Your task to perform on an android device: Open Google Maps Image 0: 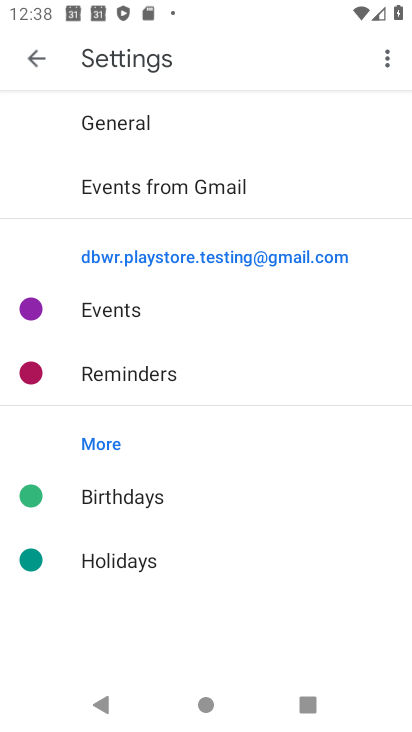
Step 0: press home button
Your task to perform on an android device: Open Google Maps Image 1: 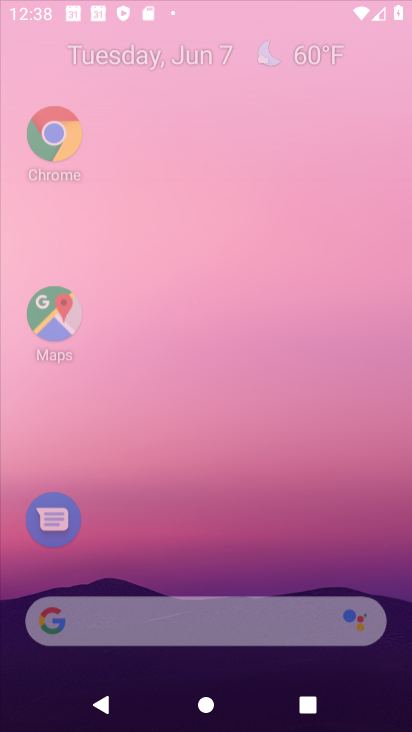
Step 1: drag from (143, 618) to (353, 253)
Your task to perform on an android device: Open Google Maps Image 2: 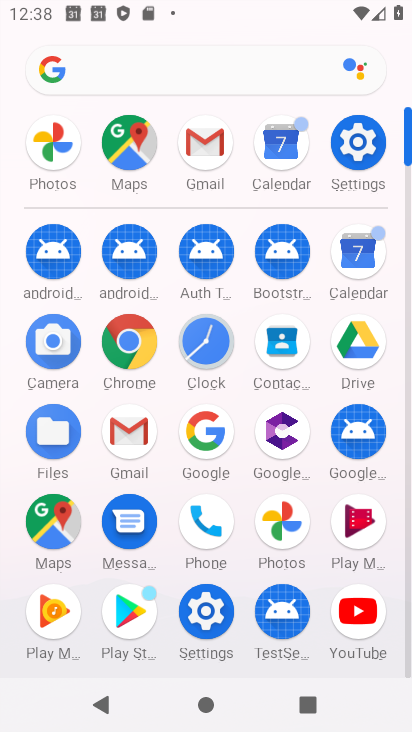
Step 2: click (58, 504)
Your task to perform on an android device: Open Google Maps Image 3: 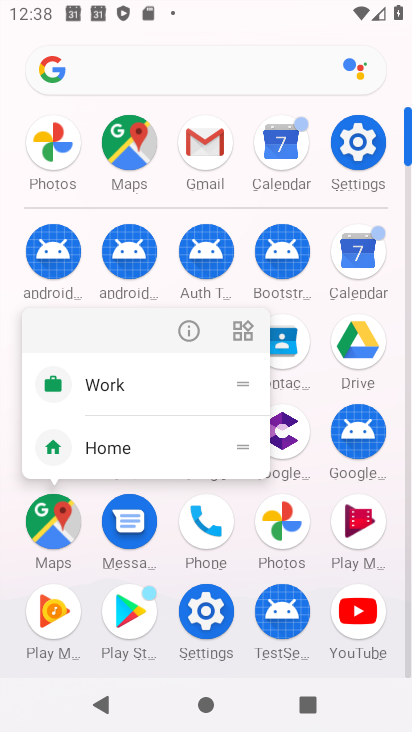
Step 3: click (172, 337)
Your task to perform on an android device: Open Google Maps Image 4: 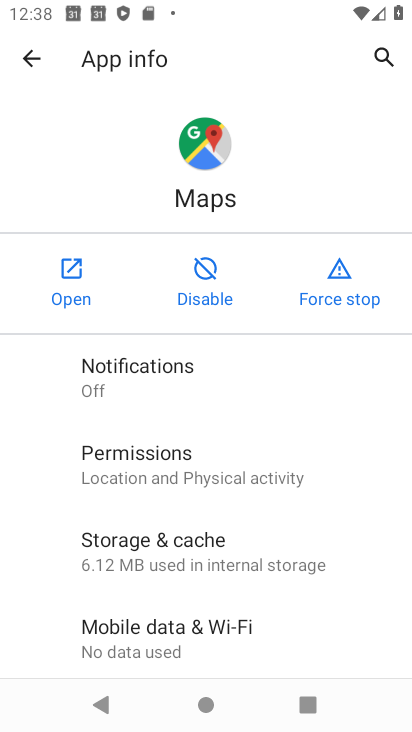
Step 4: drag from (267, 559) to (373, 207)
Your task to perform on an android device: Open Google Maps Image 5: 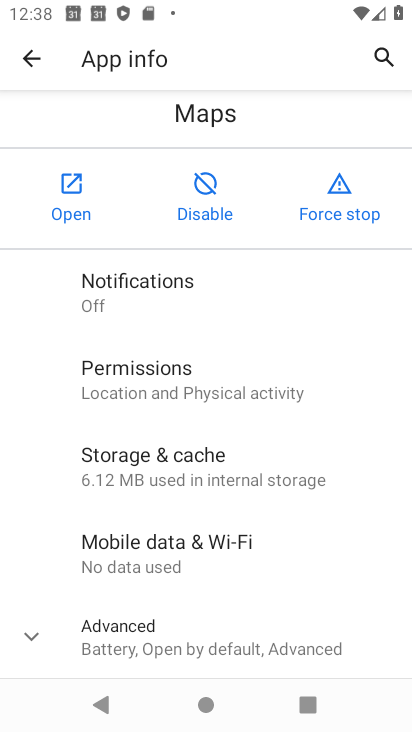
Step 5: click (90, 196)
Your task to perform on an android device: Open Google Maps Image 6: 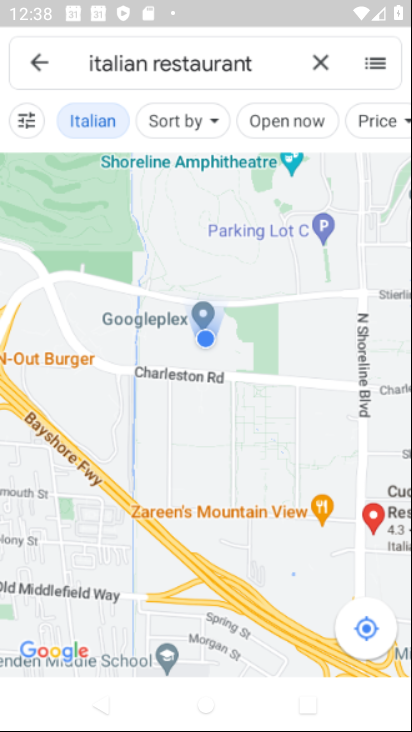
Step 6: task complete